Your task to perform on an android device: Open Youtube and go to "Your channel" Image 0: 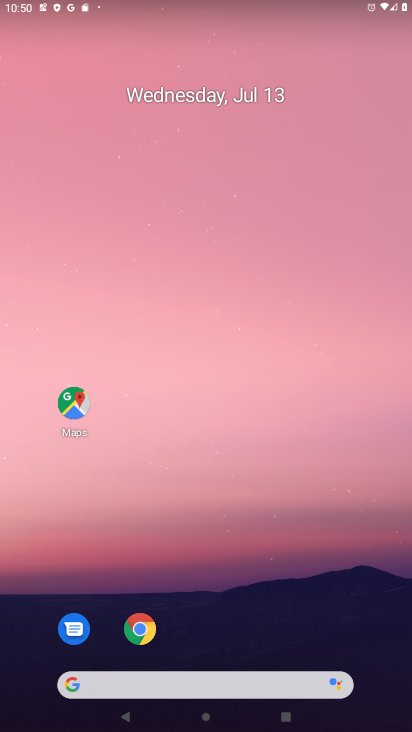
Step 0: drag from (327, 587) to (287, 210)
Your task to perform on an android device: Open Youtube and go to "Your channel" Image 1: 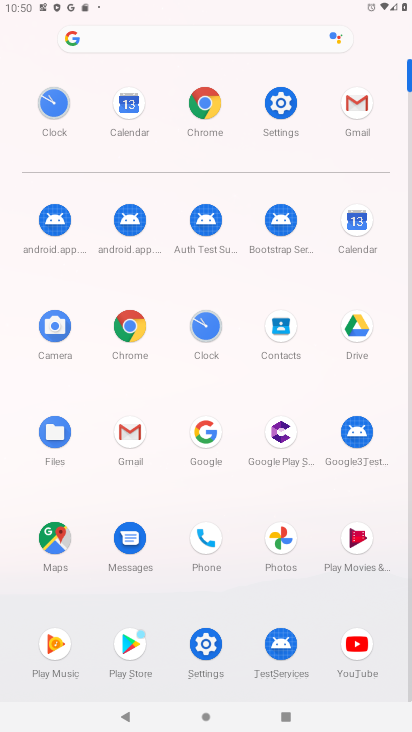
Step 1: click (348, 634)
Your task to perform on an android device: Open Youtube and go to "Your channel" Image 2: 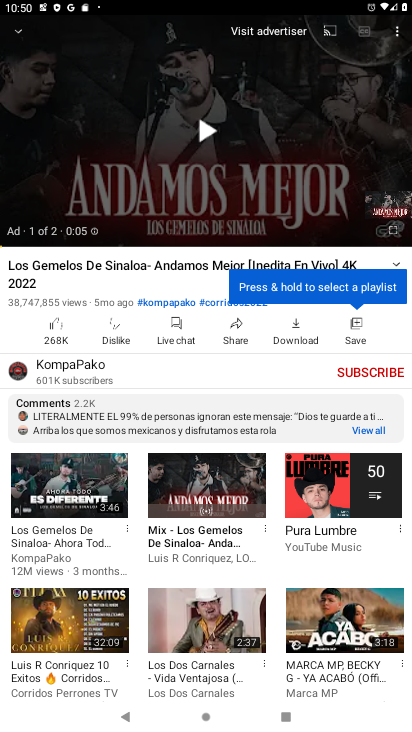
Step 2: click (396, 39)
Your task to perform on an android device: Open Youtube and go to "Your channel" Image 3: 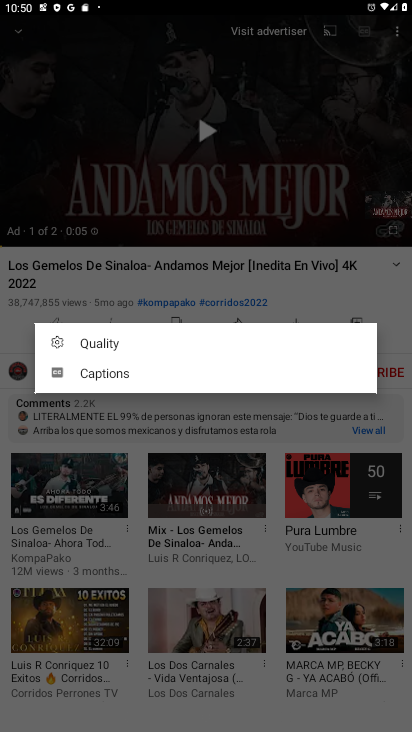
Step 3: click (209, 213)
Your task to perform on an android device: Open Youtube and go to "Your channel" Image 4: 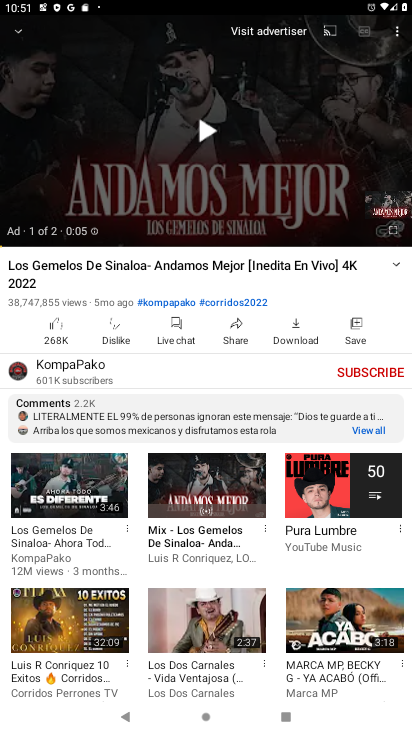
Step 4: drag from (373, 235) to (403, 548)
Your task to perform on an android device: Open Youtube and go to "Your channel" Image 5: 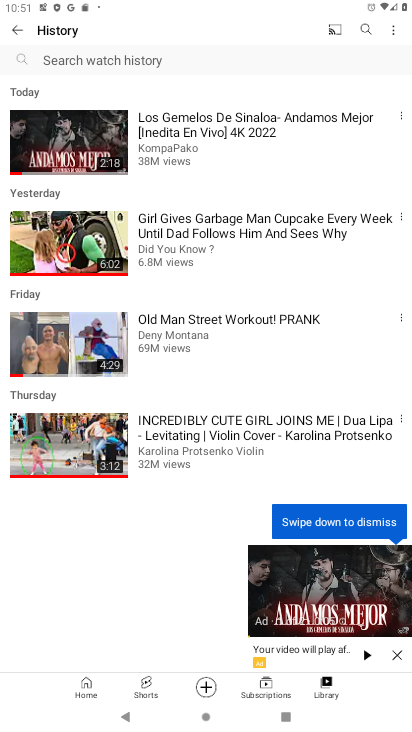
Step 5: click (396, 29)
Your task to perform on an android device: Open Youtube and go to "Your channel" Image 6: 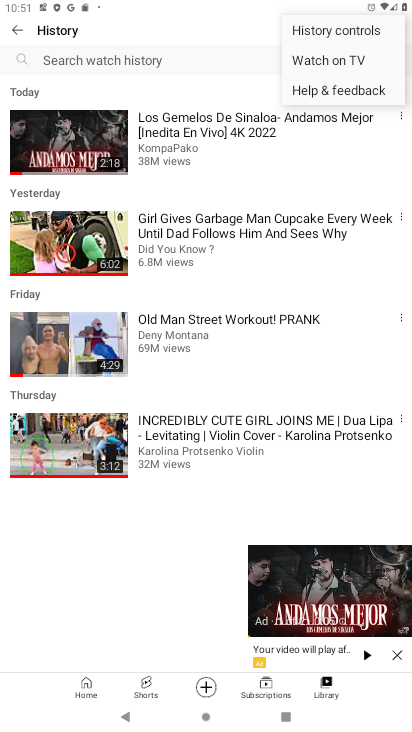
Step 6: click (15, 41)
Your task to perform on an android device: Open Youtube and go to "Your channel" Image 7: 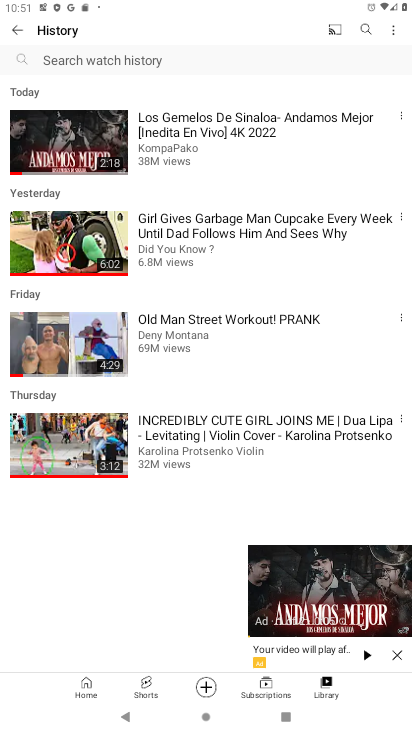
Step 7: click (15, 41)
Your task to perform on an android device: Open Youtube and go to "Your channel" Image 8: 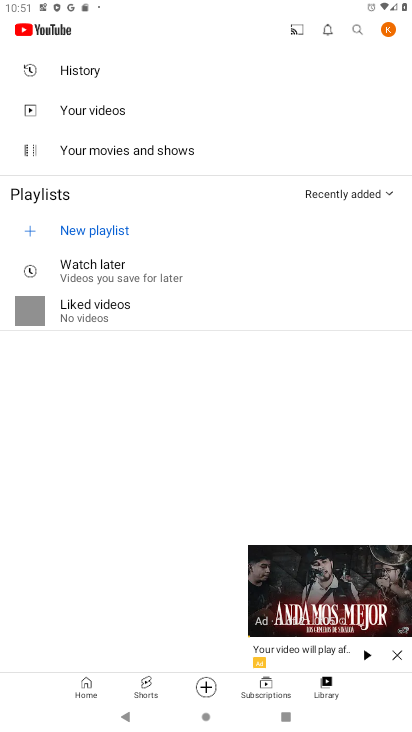
Step 8: click (403, 658)
Your task to perform on an android device: Open Youtube and go to "Your channel" Image 9: 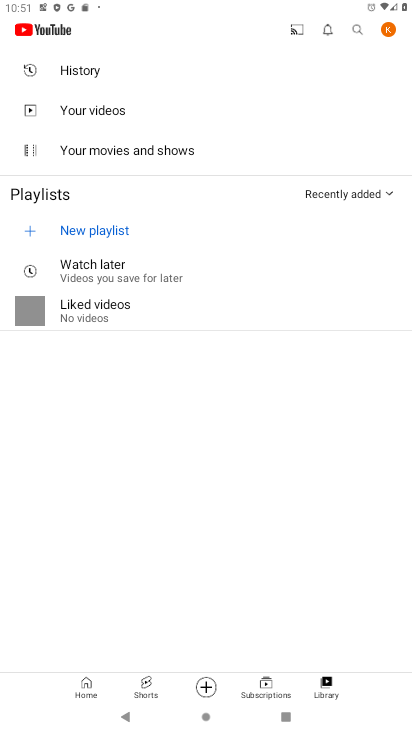
Step 9: click (387, 31)
Your task to perform on an android device: Open Youtube and go to "Your channel" Image 10: 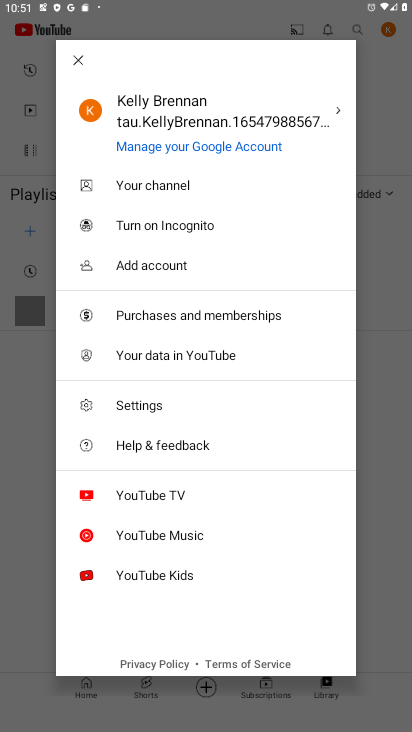
Step 10: click (181, 196)
Your task to perform on an android device: Open Youtube and go to "Your channel" Image 11: 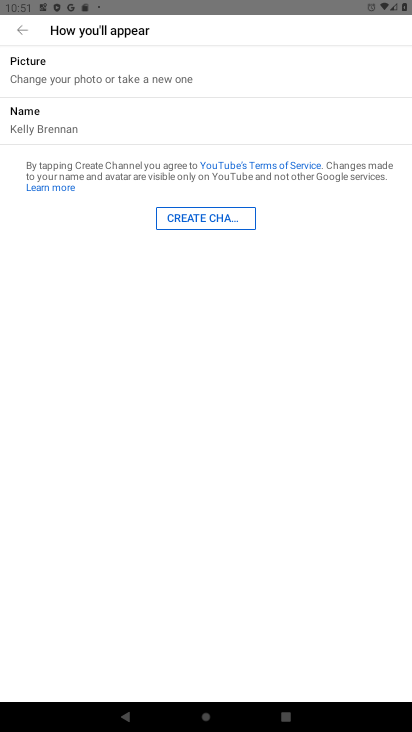
Step 11: task complete